Your task to perform on an android device: change notification settings in the gmail app Image 0: 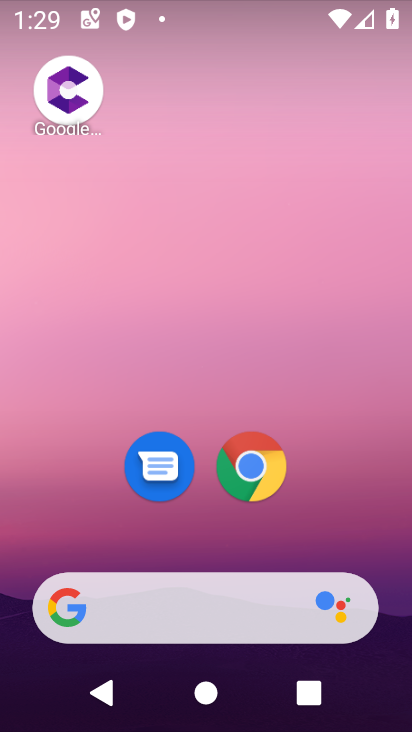
Step 0: drag from (345, 489) to (232, 17)
Your task to perform on an android device: change notification settings in the gmail app Image 1: 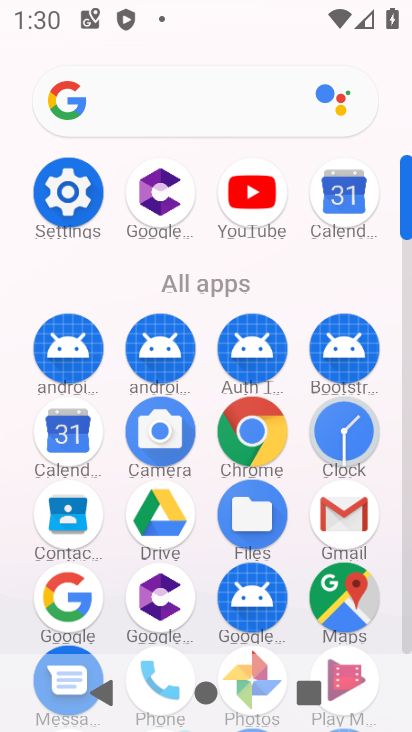
Step 1: click (333, 497)
Your task to perform on an android device: change notification settings in the gmail app Image 2: 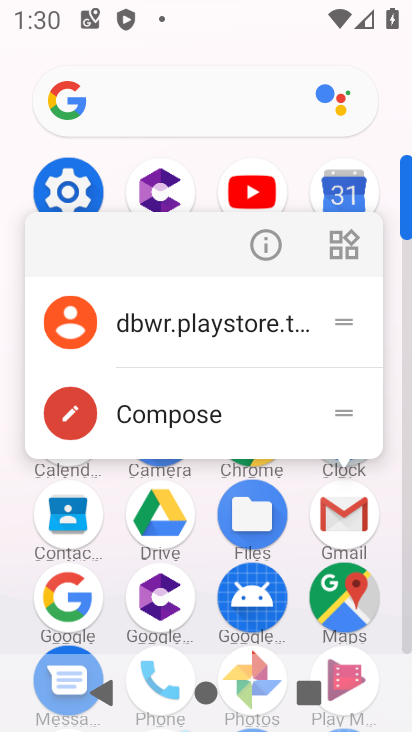
Step 2: click (260, 261)
Your task to perform on an android device: change notification settings in the gmail app Image 3: 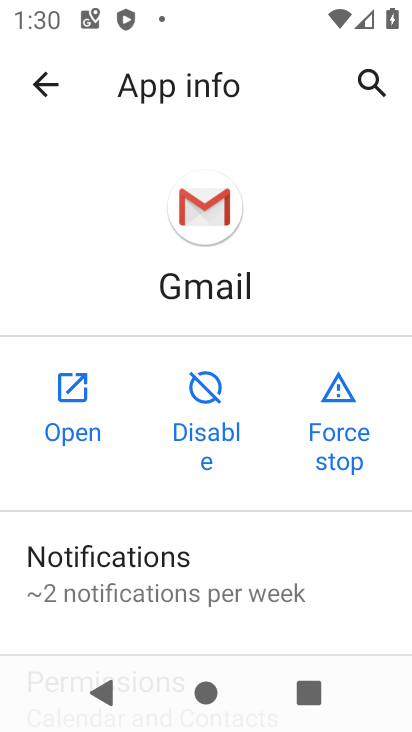
Step 3: click (227, 595)
Your task to perform on an android device: change notification settings in the gmail app Image 4: 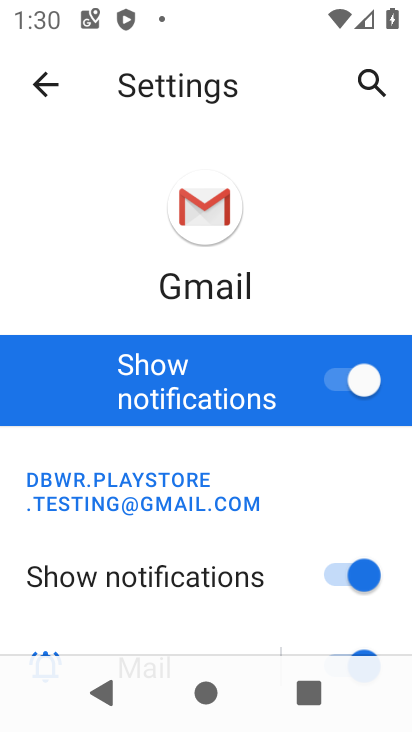
Step 4: click (220, 361)
Your task to perform on an android device: change notification settings in the gmail app Image 5: 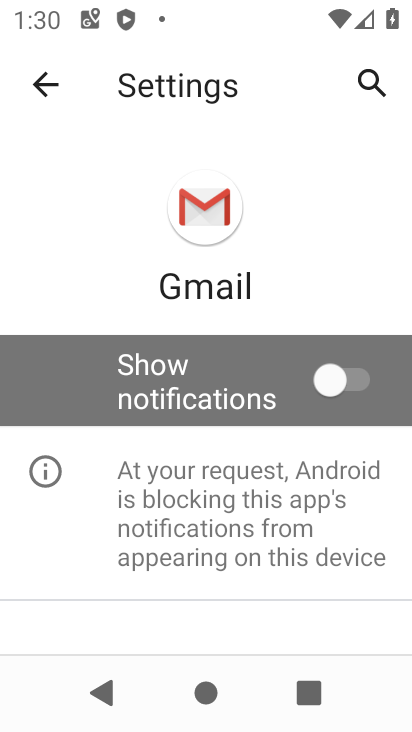
Step 5: task complete